Your task to perform on an android device: Open accessibility settings Image 0: 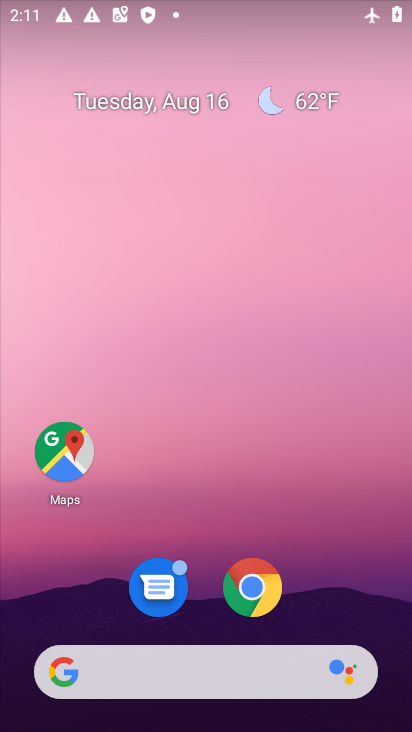
Step 0: drag from (193, 598) to (291, 70)
Your task to perform on an android device: Open accessibility settings Image 1: 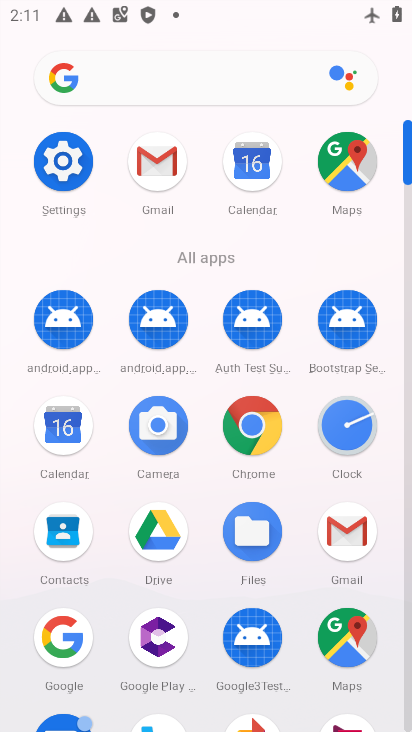
Step 1: click (71, 162)
Your task to perform on an android device: Open accessibility settings Image 2: 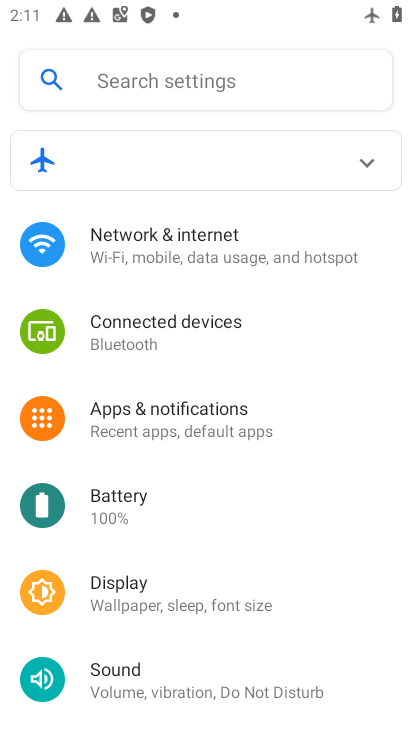
Step 2: drag from (205, 662) to (259, 185)
Your task to perform on an android device: Open accessibility settings Image 3: 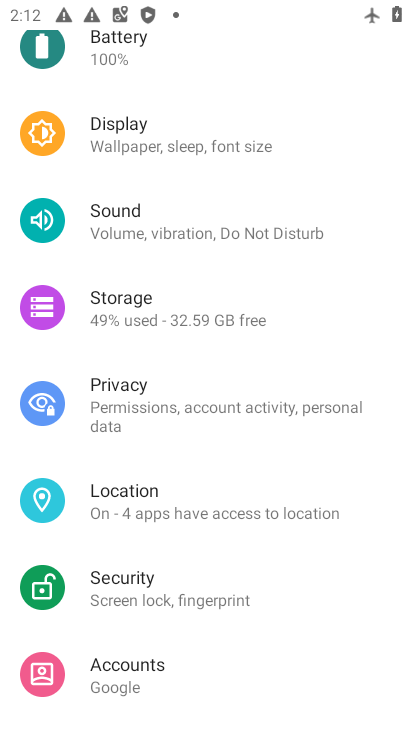
Step 3: drag from (178, 657) to (312, 76)
Your task to perform on an android device: Open accessibility settings Image 4: 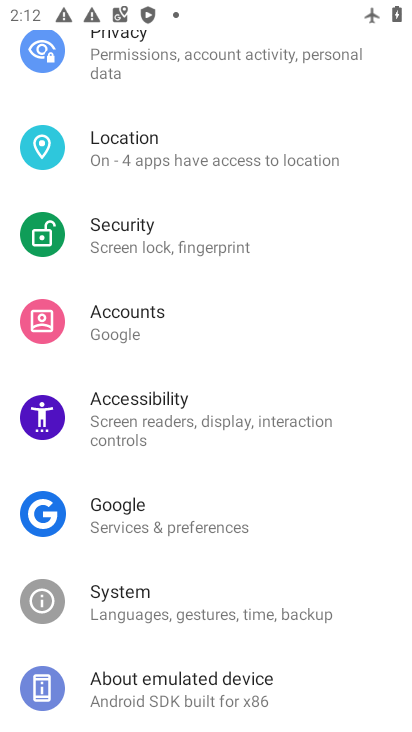
Step 4: click (149, 411)
Your task to perform on an android device: Open accessibility settings Image 5: 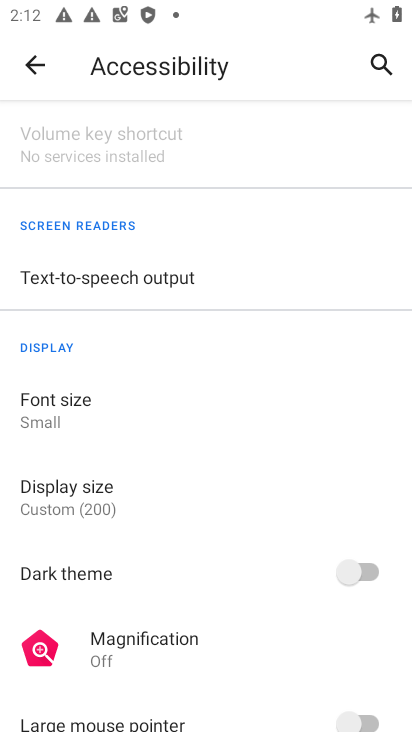
Step 5: task complete